Your task to perform on an android device: clear all cookies in the chrome app Image 0: 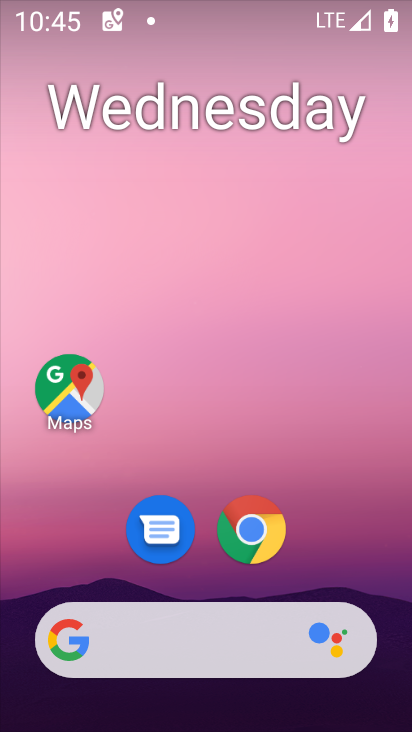
Step 0: click (258, 532)
Your task to perform on an android device: clear all cookies in the chrome app Image 1: 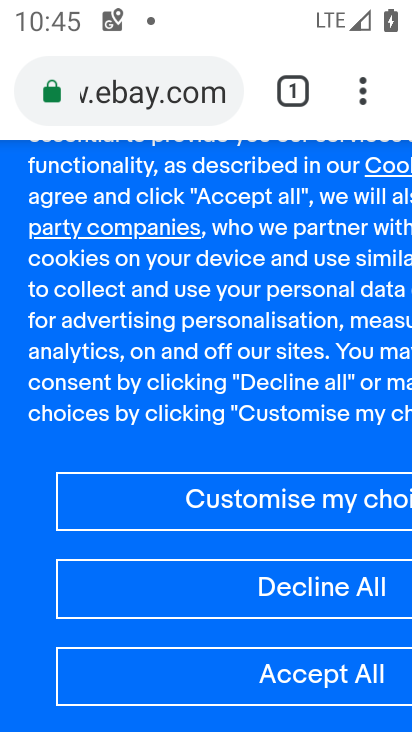
Step 1: click (362, 102)
Your task to perform on an android device: clear all cookies in the chrome app Image 2: 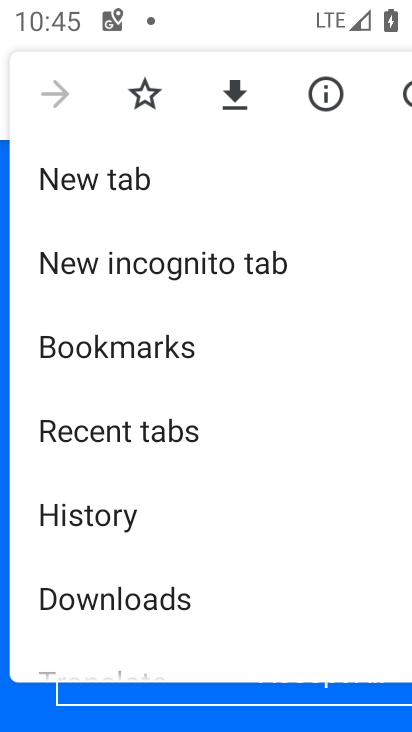
Step 2: click (99, 523)
Your task to perform on an android device: clear all cookies in the chrome app Image 3: 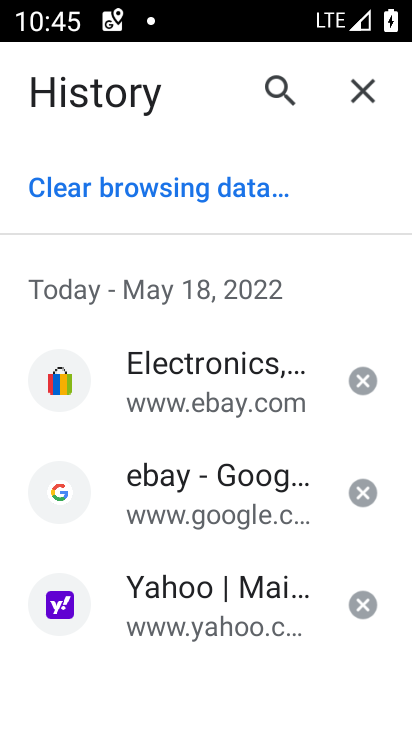
Step 3: click (129, 189)
Your task to perform on an android device: clear all cookies in the chrome app Image 4: 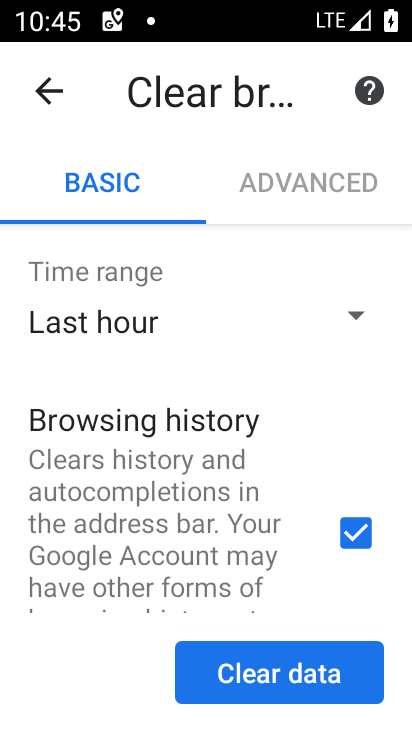
Step 4: drag from (235, 498) to (227, 325)
Your task to perform on an android device: clear all cookies in the chrome app Image 5: 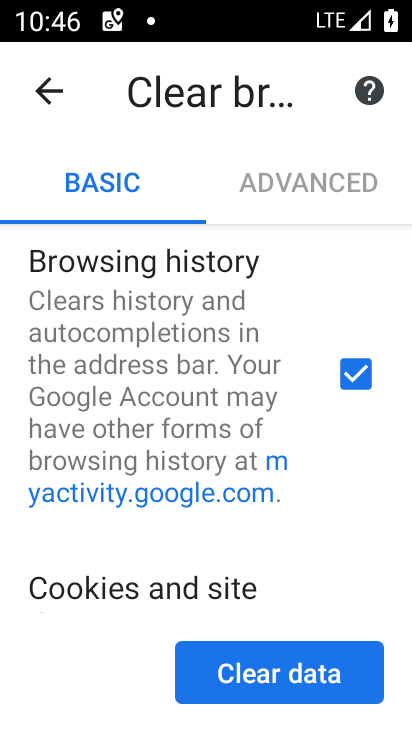
Step 5: click (345, 362)
Your task to perform on an android device: clear all cookies in the chrome app Image 6: 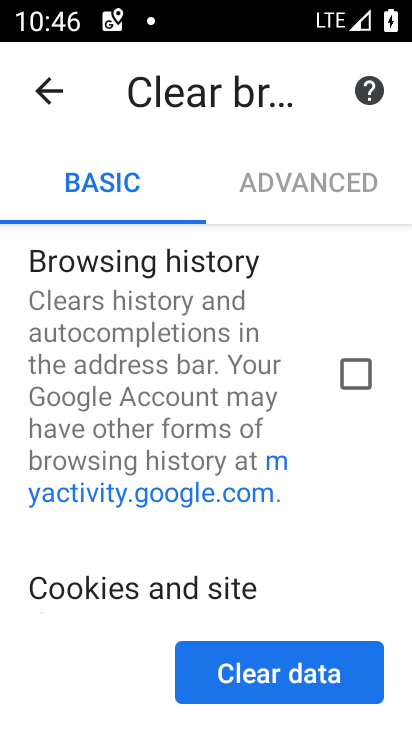
Step 6: drag from (348, 479) to (348, 230)
Your task to perform on an android device: clear all cookies in the chrome app Image 7: 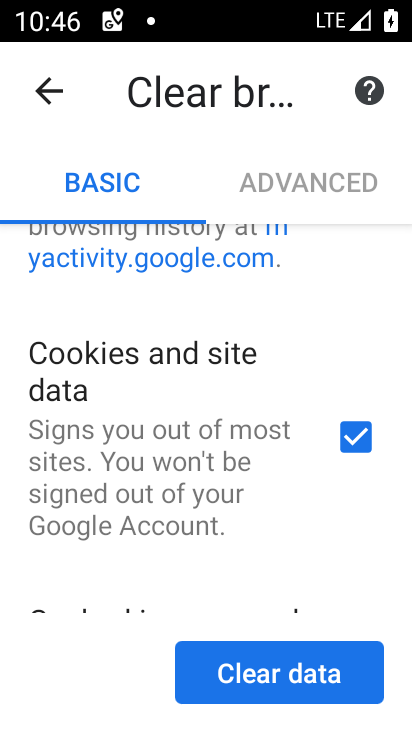
Step 7: drag from (303, 557) to (321, 267)
Your task to perform on an android device: clear all cookies in the chrome app Image 8: 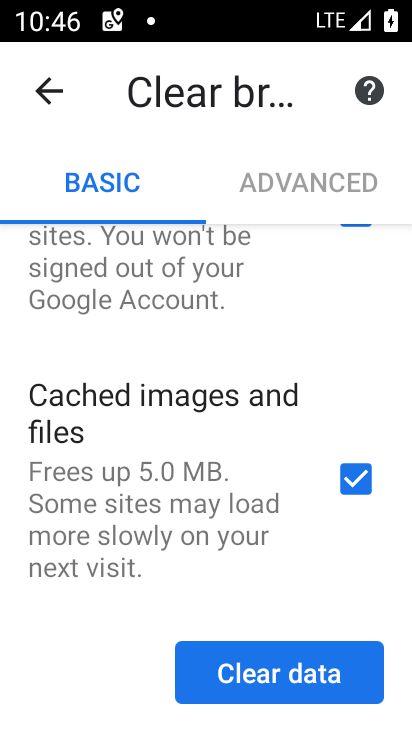
Step 8: click (350, 484)
Your task to perform on an android device: clear all cookies in the chrome app Image 9: 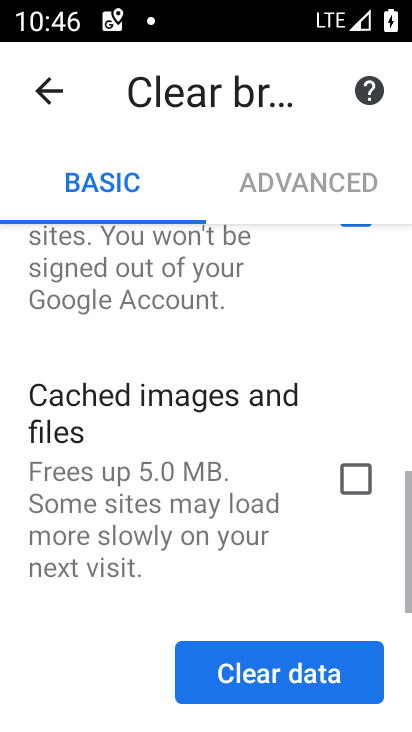
Step 9: click (272, 691)
Your task to perform on an android device: clear all cookies in the chrome app Image 10: 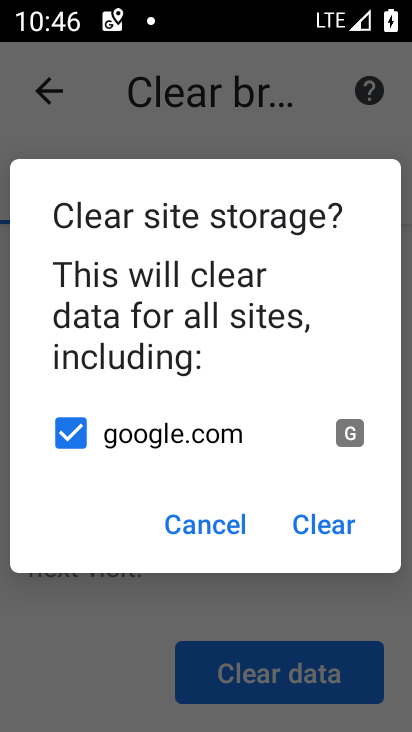
Step 10: click (328, 520)
Your task to perform on an android device: clear all cookies in the chrome app Image 11: 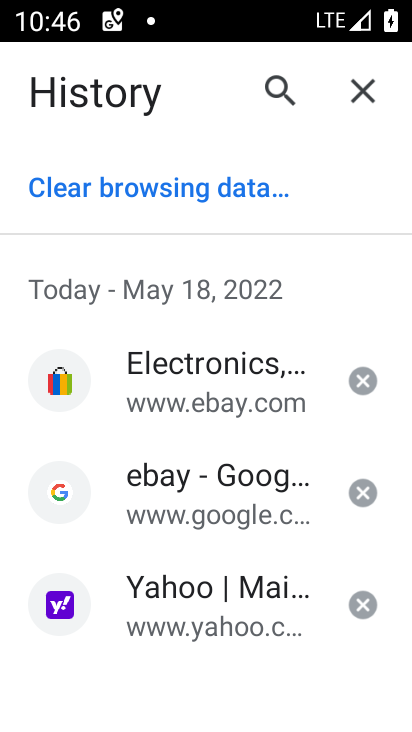
Step 11: task complete